Your task to perform on an android device: turn off translation in the chrome app Image 0: 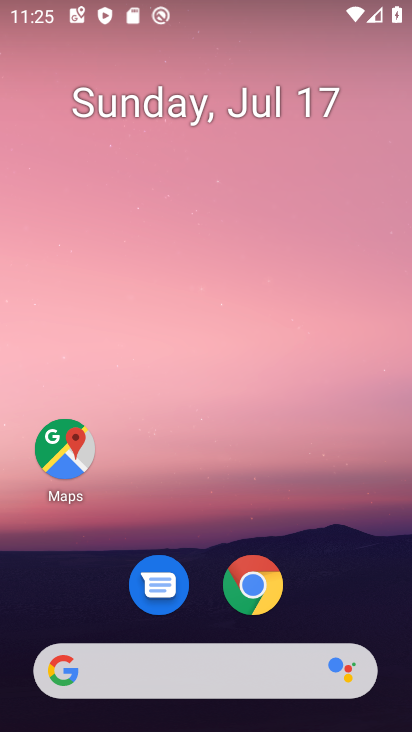
Step 0: click (269, 587)
Your task to perform on an android device: turn off translation in the chrome app Image 1: 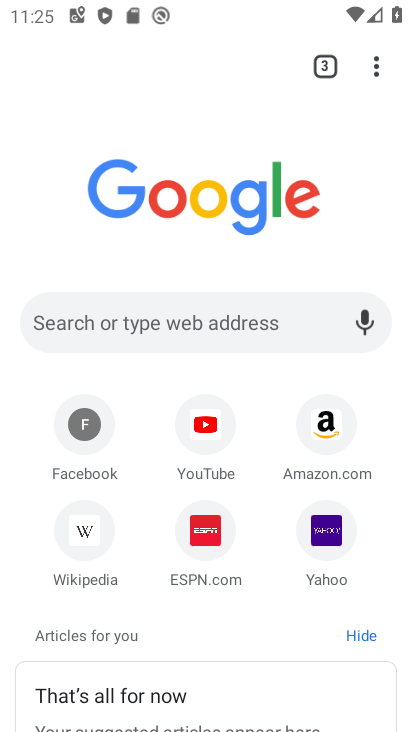
Step 1: click (377, 62)
Your task to perform on an android device: turn off translation in the chrome app Image 2: 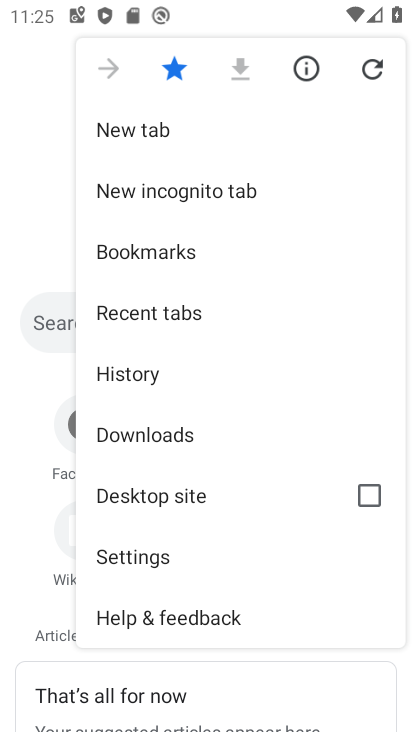
Step 2: click (156, 553)
Your task to perform on an android device: turn off translation in the chrome app Image 3: 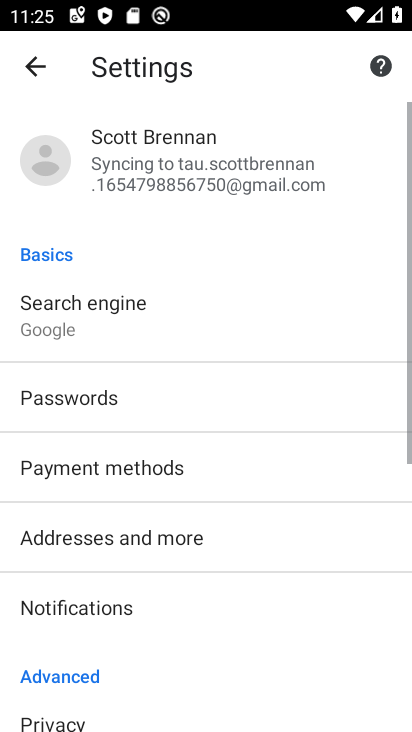
Step 3: drag from (164, 613) to (208, 145)
Your task to perform on an android device: turn off translation in the chrome app Image 4: 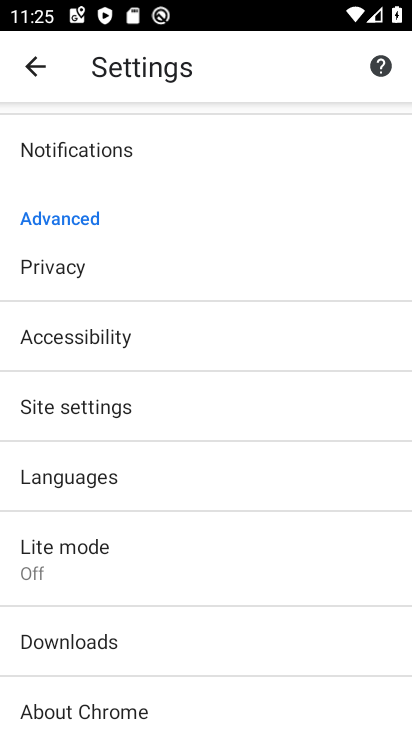
Step 4: click (205, 471)
Your task to perform on an android device: turn off translation in the chrome app Image 5: 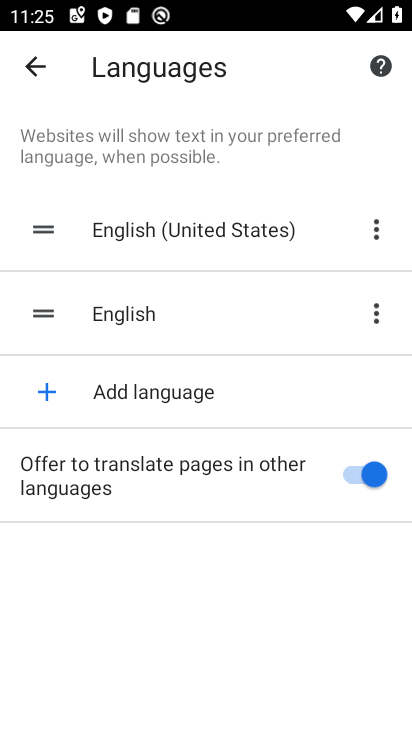
Step 5: click (359, 472)
Your task to perform on an android device: turn off translation in the chrome app Image 6: 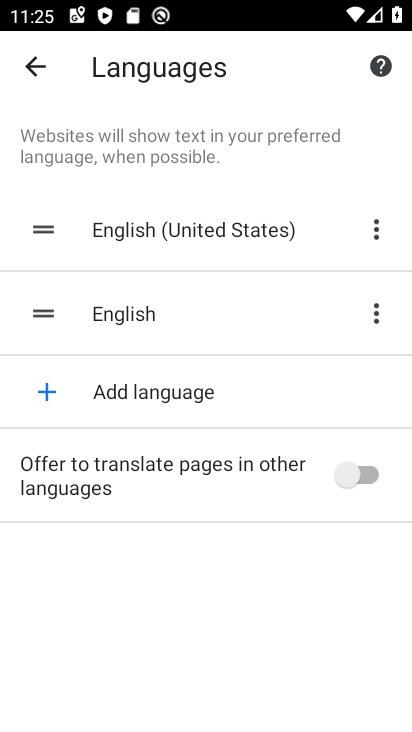
Step 6: task complete